Your task to perform on an android device: Open the Play Movies app and select the watchlist tab. Image 0: 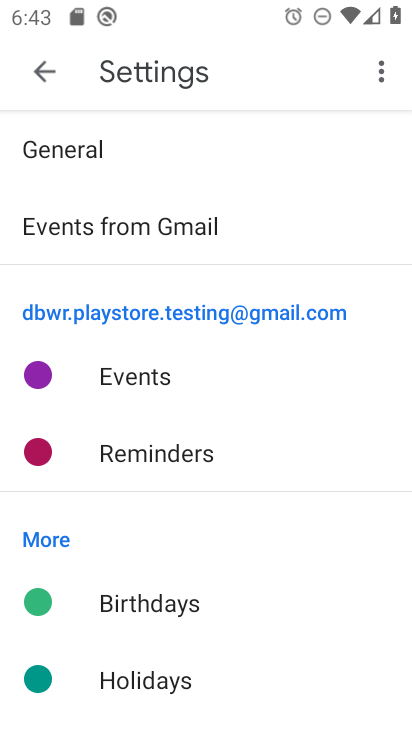
Step 0: press home button
Your task to perform on an android device: Open the Play Movies app and select the watchlist tab. Image 1: 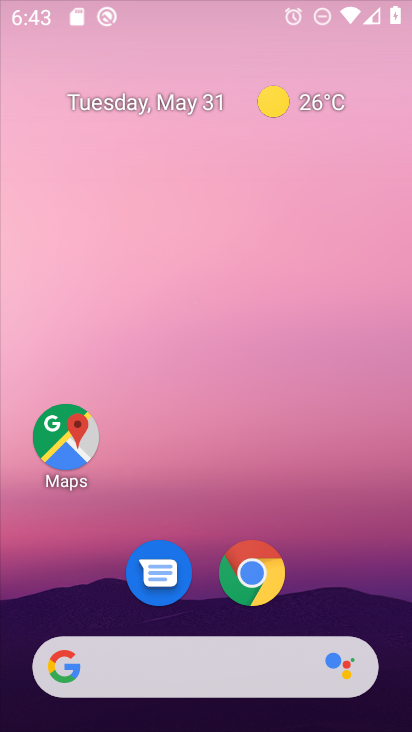
Step 1: drag from (383, 676) to (322, 323)
Your task to perform on an android device: Open the Play Movies app and select the watchlist tab. Image 2: 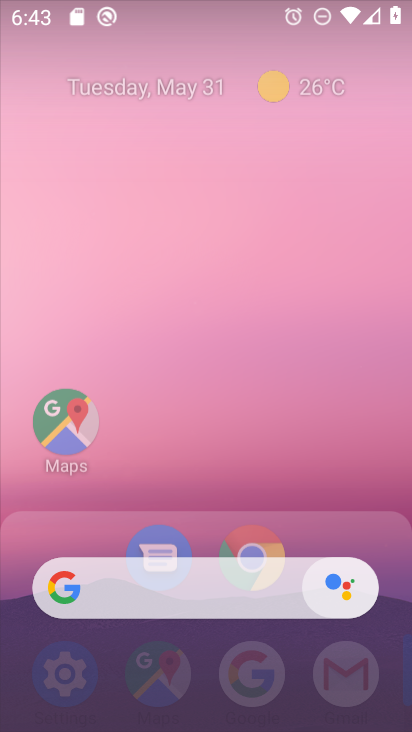
Step 2: drag from (270, 134) to (246, 57)
Your task to perform on an android device: Open the Play Movies app and select the watchlist tab. Image 3: 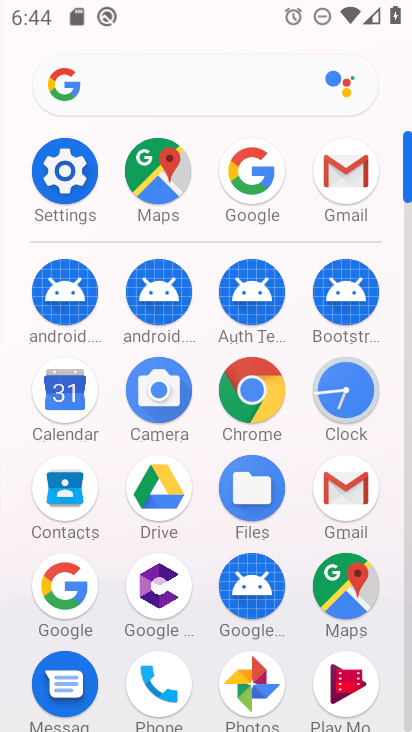
Step 3: click (337, 682)
Your task to perform on an android device: Open the Play Movies app and select the watchlist tab. Image 4: 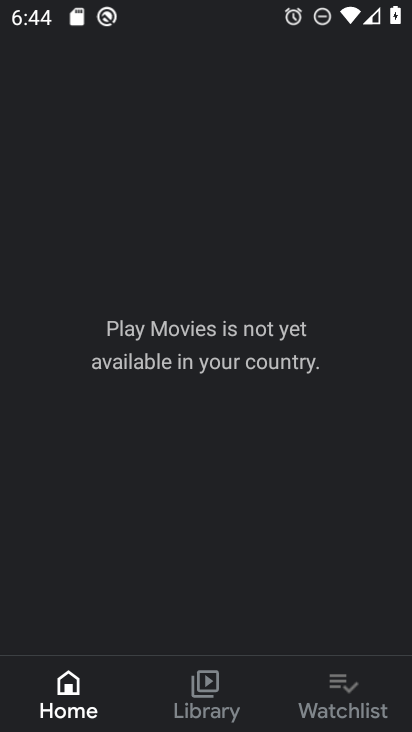
Step 4: click (360, 702)
Your task to perform on an android device: Open the Play Movies app and select the watchlist tab. Image 5: 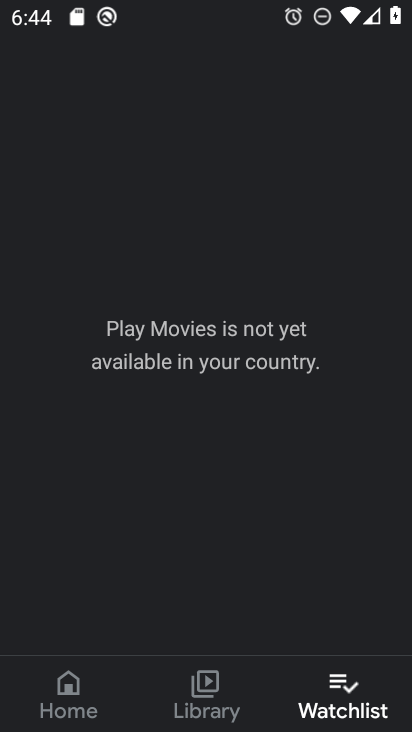
Step 5: task complete